Your task to perform on an android device: turn off javascript in the chrome app Image 0: 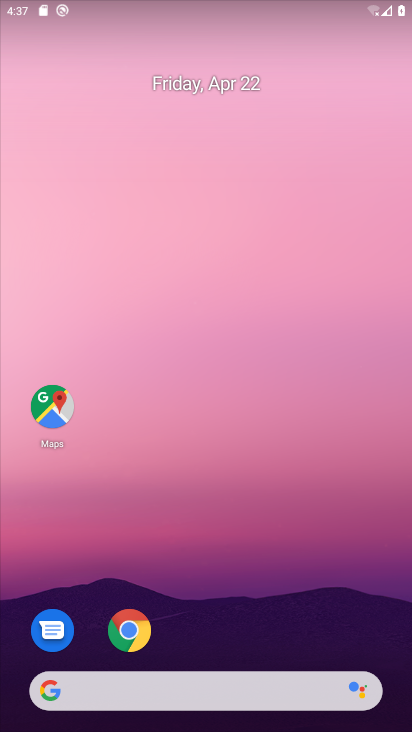
Step 0: click (132, 637)
Your task to perform on an android device: turn off javascript in the chrome app Image 1: 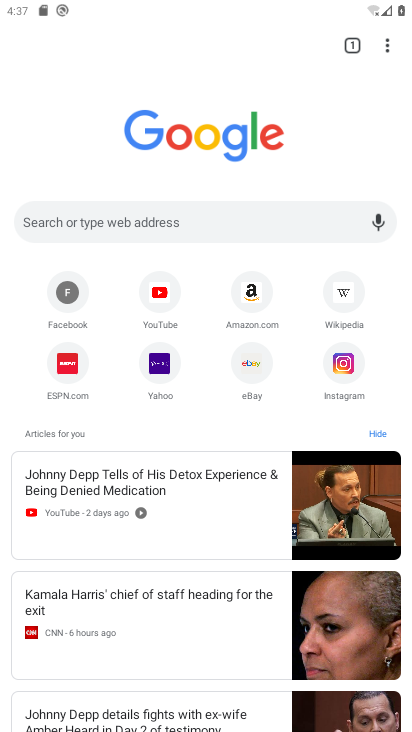
Step 1: click (388, 43)
Your task to perform on an android device: turn off javascript in the chrome app Image 2: 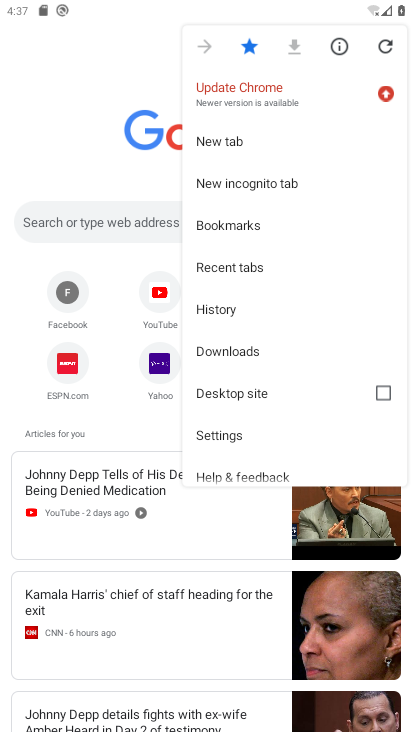
Step 2: click (268, 446)
Your task to perform on an android device: turn off javascript in the chrome app Image 3: 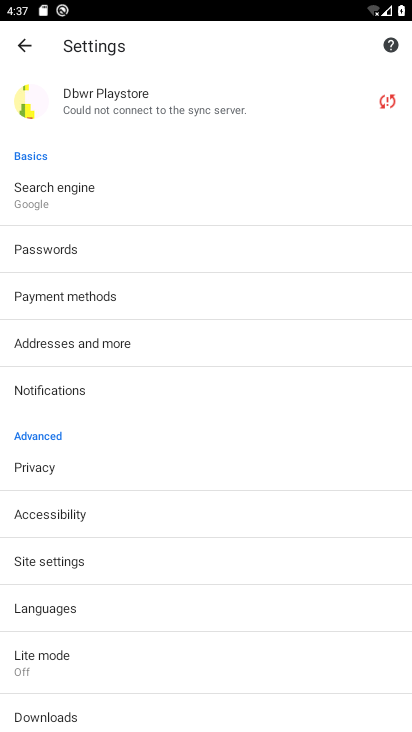
Step 3: click (77, 555)
Your task to perform on an android device: turn off javascript in the chrome app Image 4: 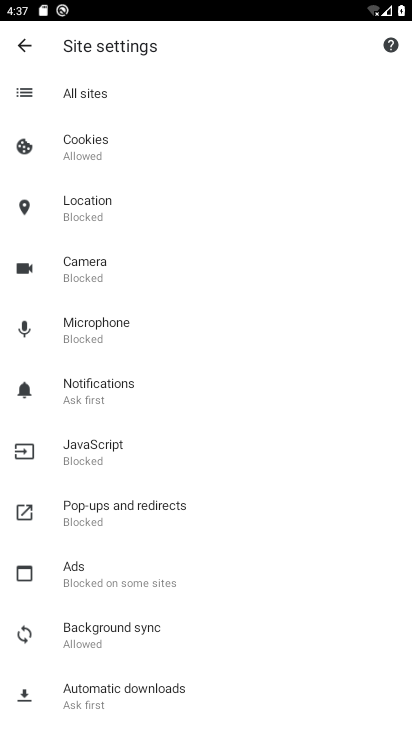
Step 4: click (110, 452)
Your task to perform on an android device: turn off javascript in the chrome app Image 5: 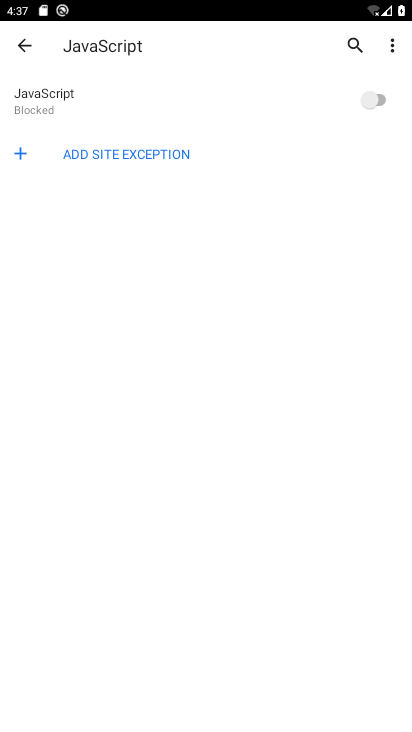
Step 5: task complete